Your task to perform on an android device: change notifications settings Image 0: 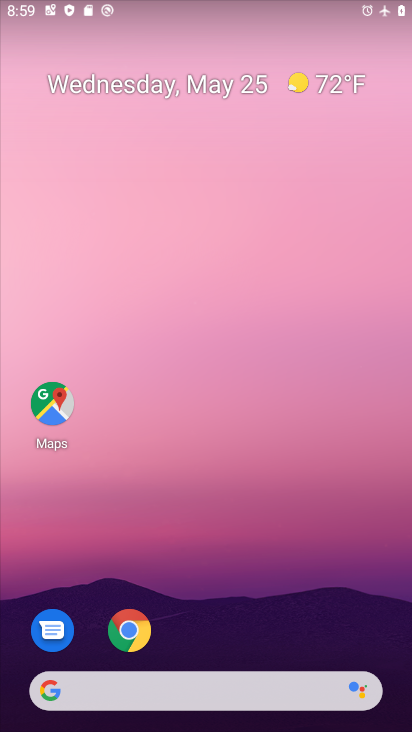
Step 0: drag from (200, 642) to (233, 190)
Your task to perform on an android device: change notifications settings Image 1: 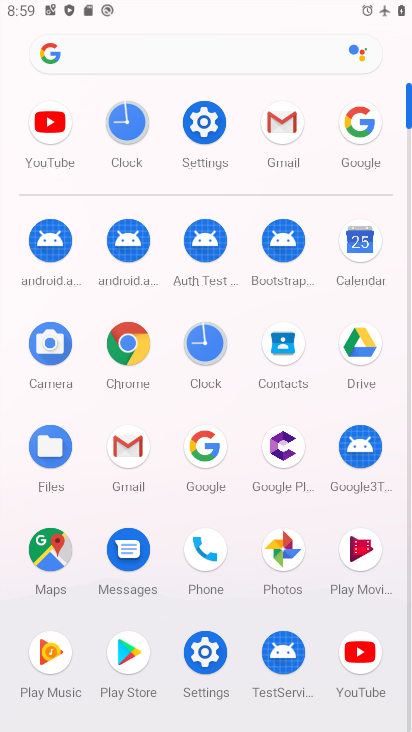
Step 1: click (196, 144)
Your task to perform on an android device: change notifications settings Image 2: 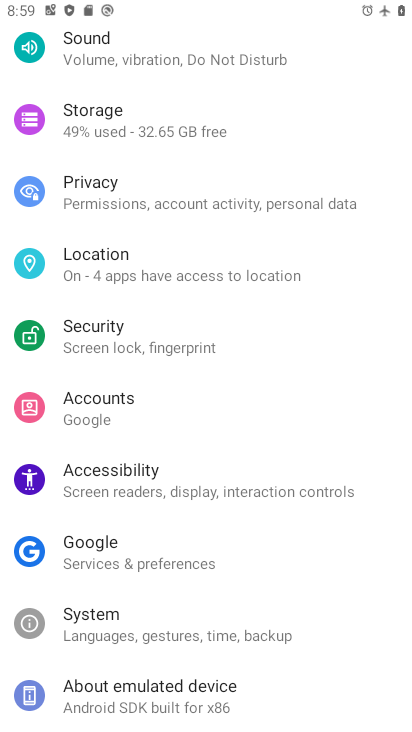
Step 2: drag from (214, 230) to (220, 598)
Your task to perform on an android device: change notifications settings Image 3: 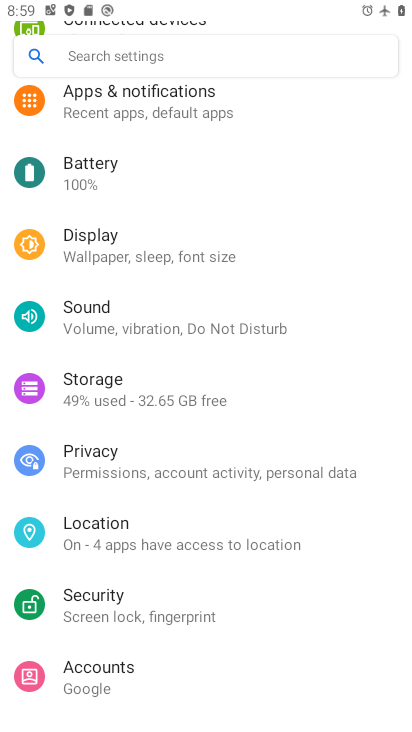
Step 3: click (203, 113)
Your task to perform on an android device: change notifications settings Image 4: 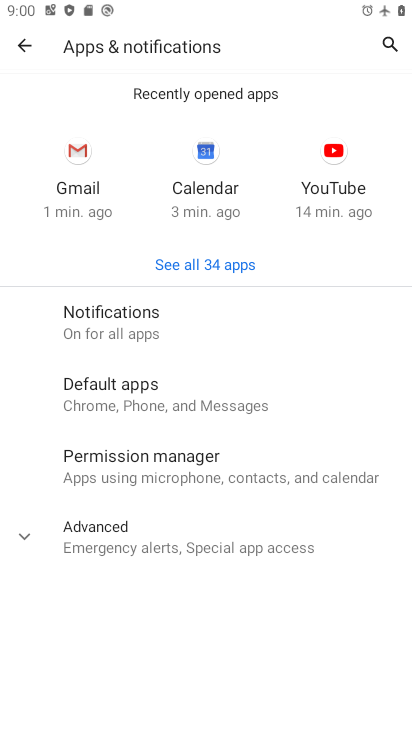
Step 4: click (105, 332)
Your task to perform on an android device: change notifications settings Image 5: 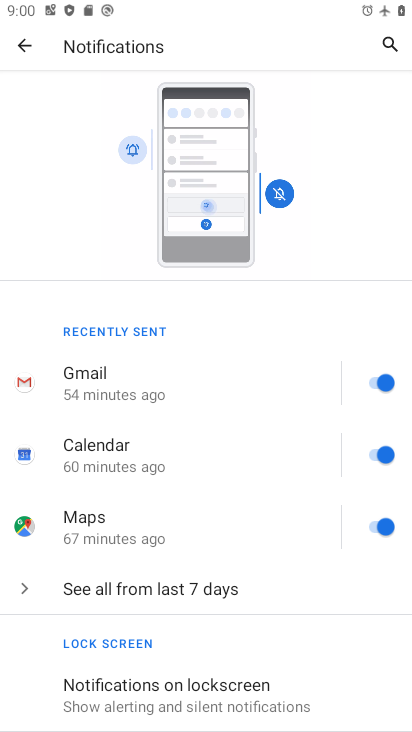
Step 5: task complete